Your task to perform on an android device: Check the weather Image 0: 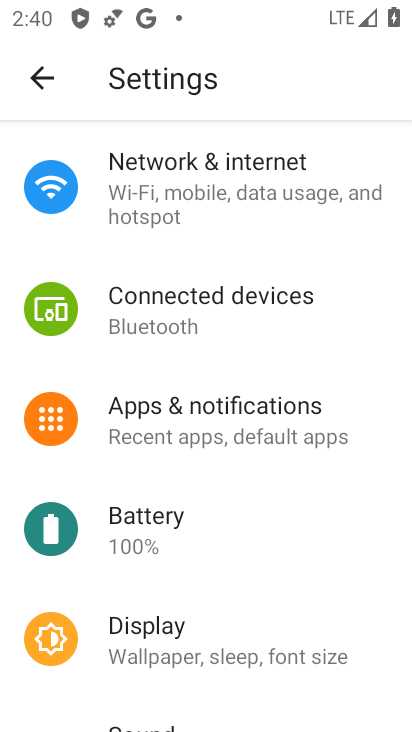
Step 0: press home button
Your task to perform on an android device: Check the weather Image 1: 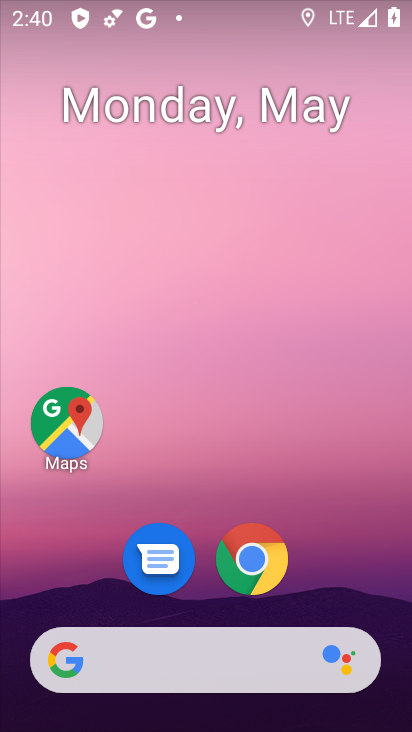
Step 1: click (153, 641)
Your task to perform on an android device: Check the weather Image 2: 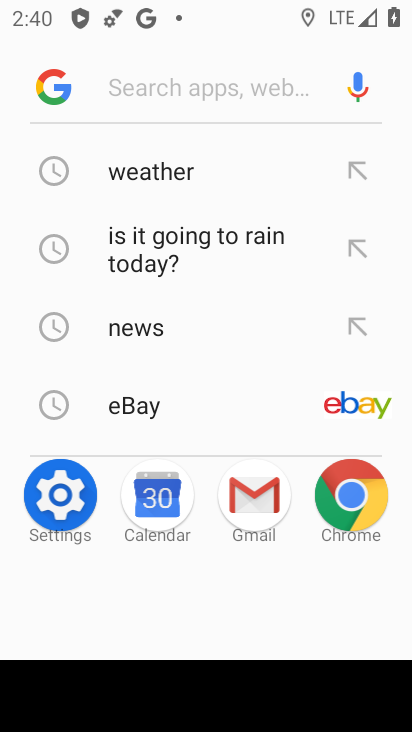
Step 2: type "weather"
Your task to perform on an android device: Check the weather Image 3: 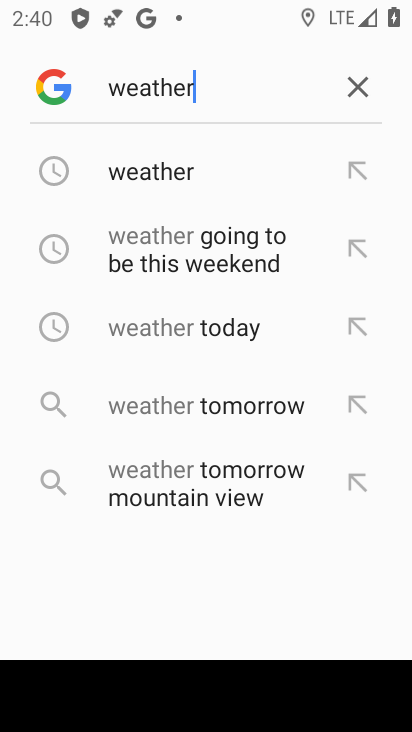
Step 3: click (131, 167)
Your task to perform on an android device: Check the weather Image 4: 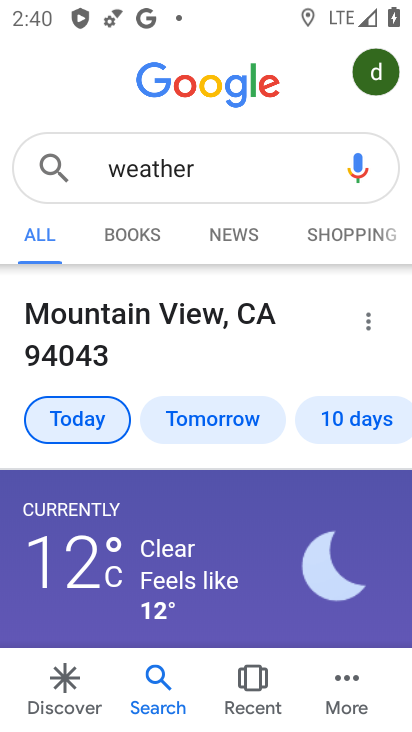
Step 4: task complete